Your task to perform on an android device: set default search engine in the chrome app Image 0: 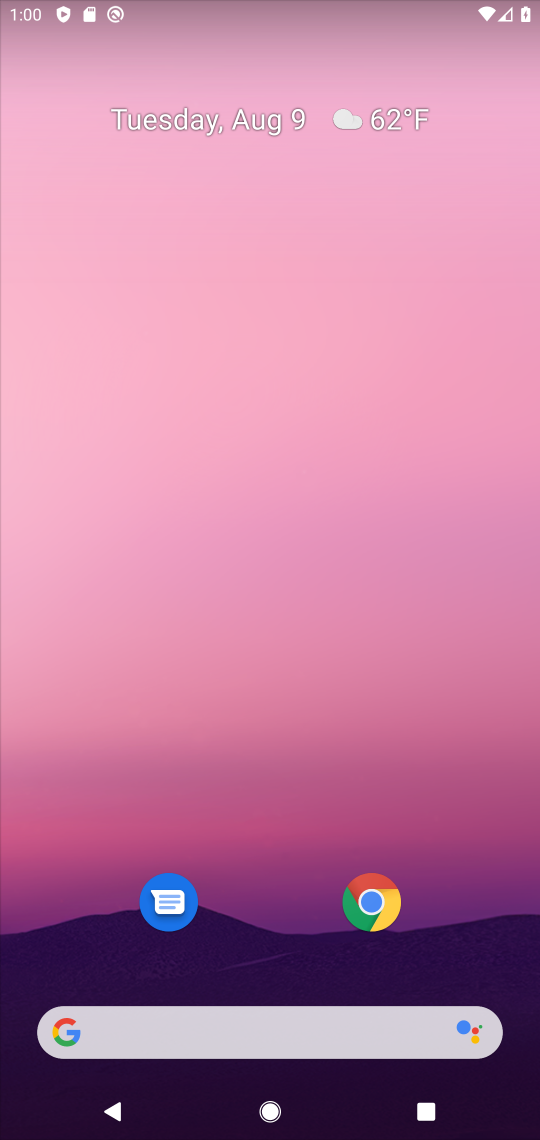
Step 0: drag from (247, 947) to (106, 423)
Your task to perform on an android device: set default search engine in the chrome app Image 1: 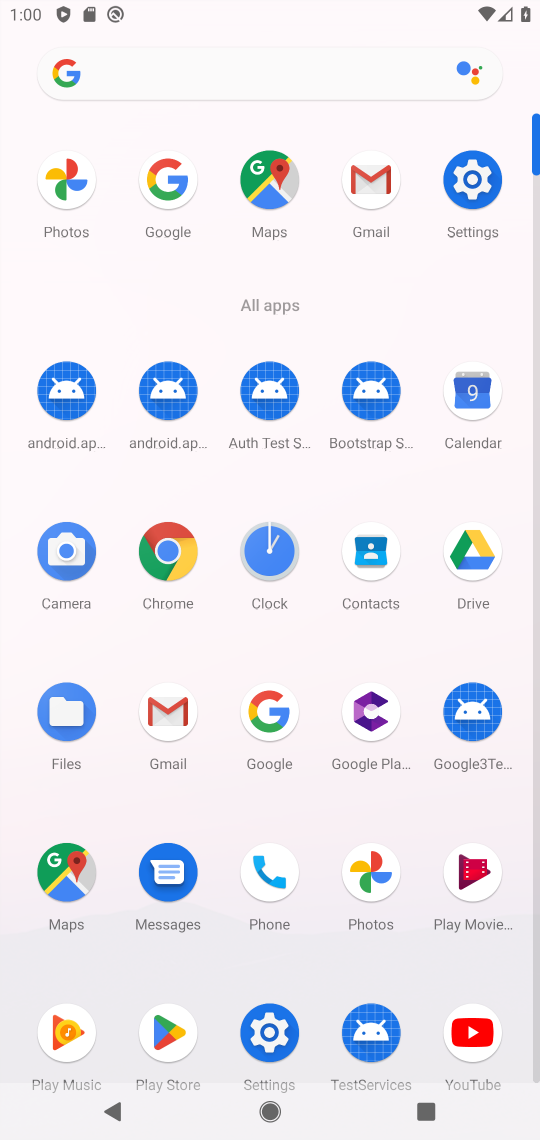
Step 1: click (152, 562)
Your task to perform on an android device: set default search engine in the chrome app Image 2: 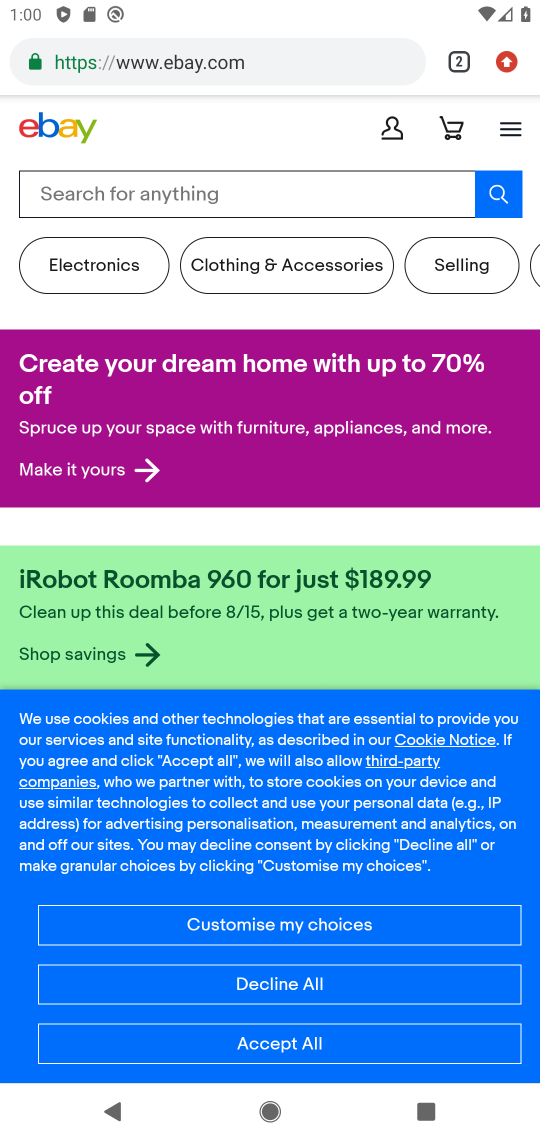
Step 2: click (502, 58)
Your task to perform on an android device: set default search engine in the chrome app Image 3: 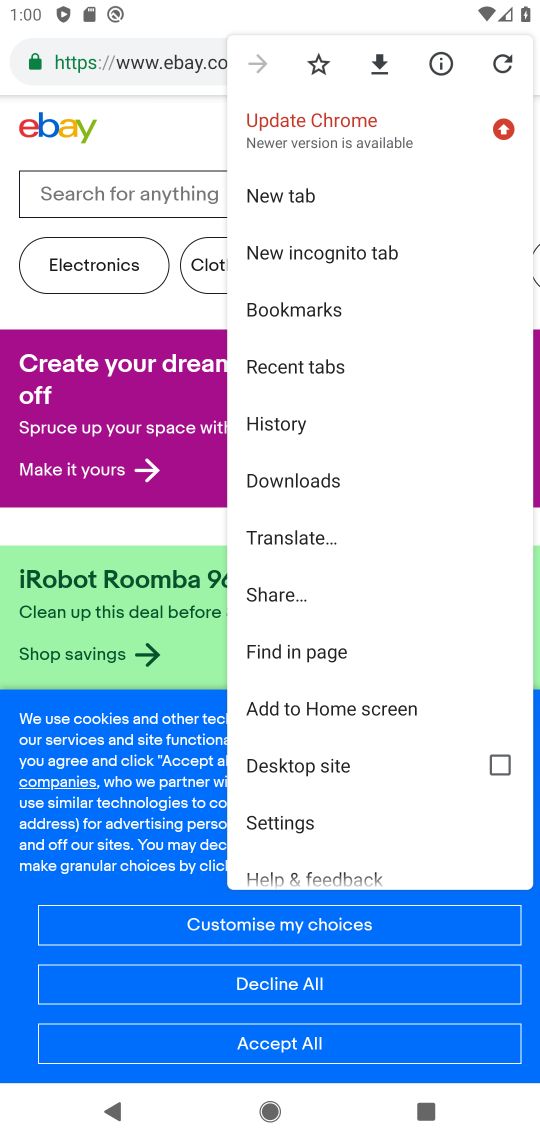
Step 3: click (272, 821)
Your task to perform on an android device: set default search engine in the chrome app Image 4: 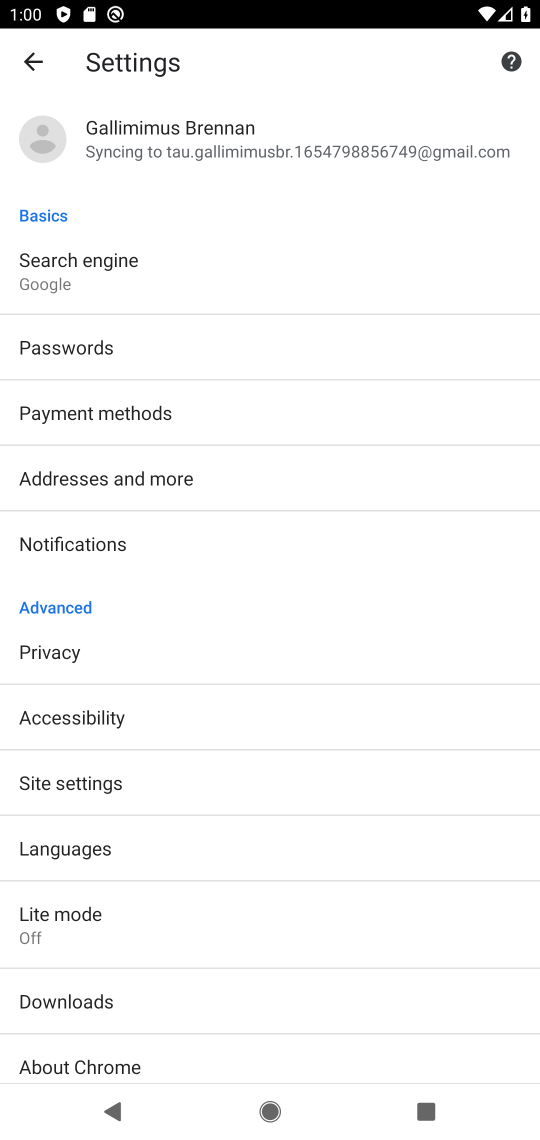
Step 4: click (85, 257)
Your task to perform on an android device: set default search engine in the chrome app Image 5: 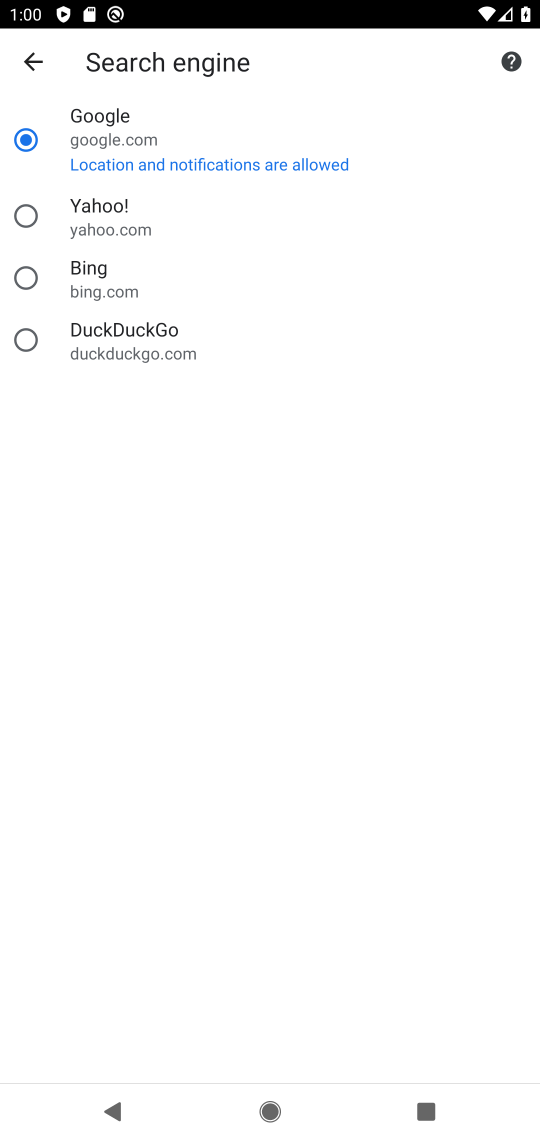
Step 5: task complete